Your task to perform on an android device: move an email to a new category in the gmail app Image 0: 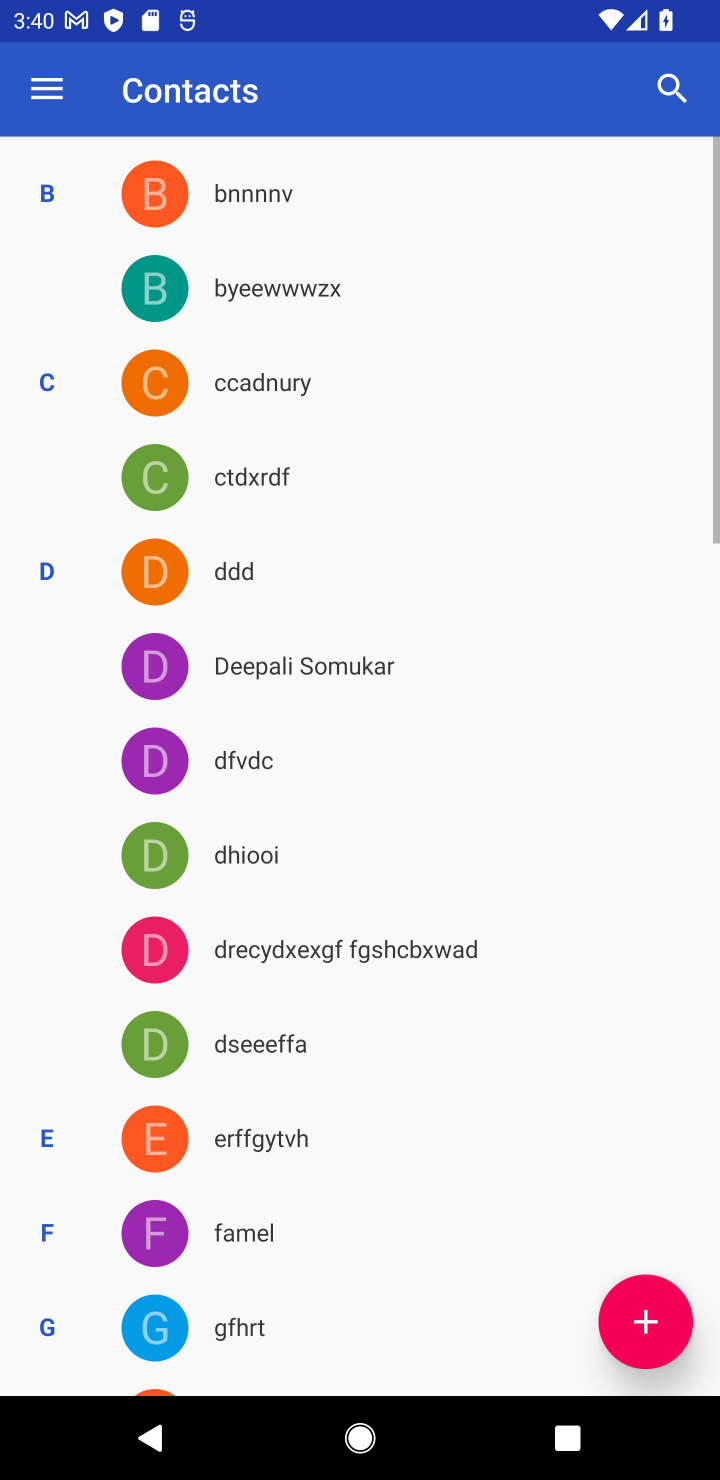
Step 0: press home button
Your task to perform on an android device: move an email to a new category in the gmail app Image 1: 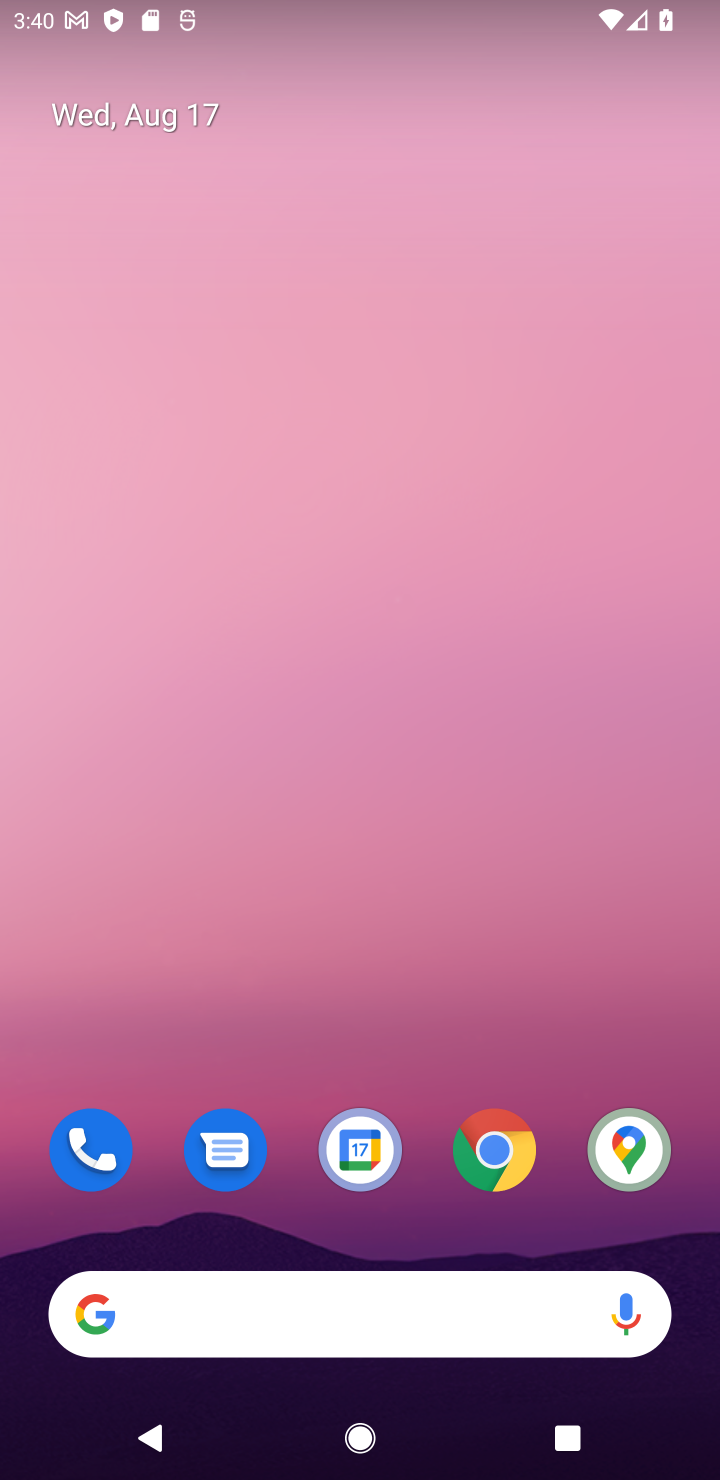
Step 1: drag from (635, 1227) to (322, 48)
Your task to perform on an android device: move an email to a new category in the gmail app Image 2: 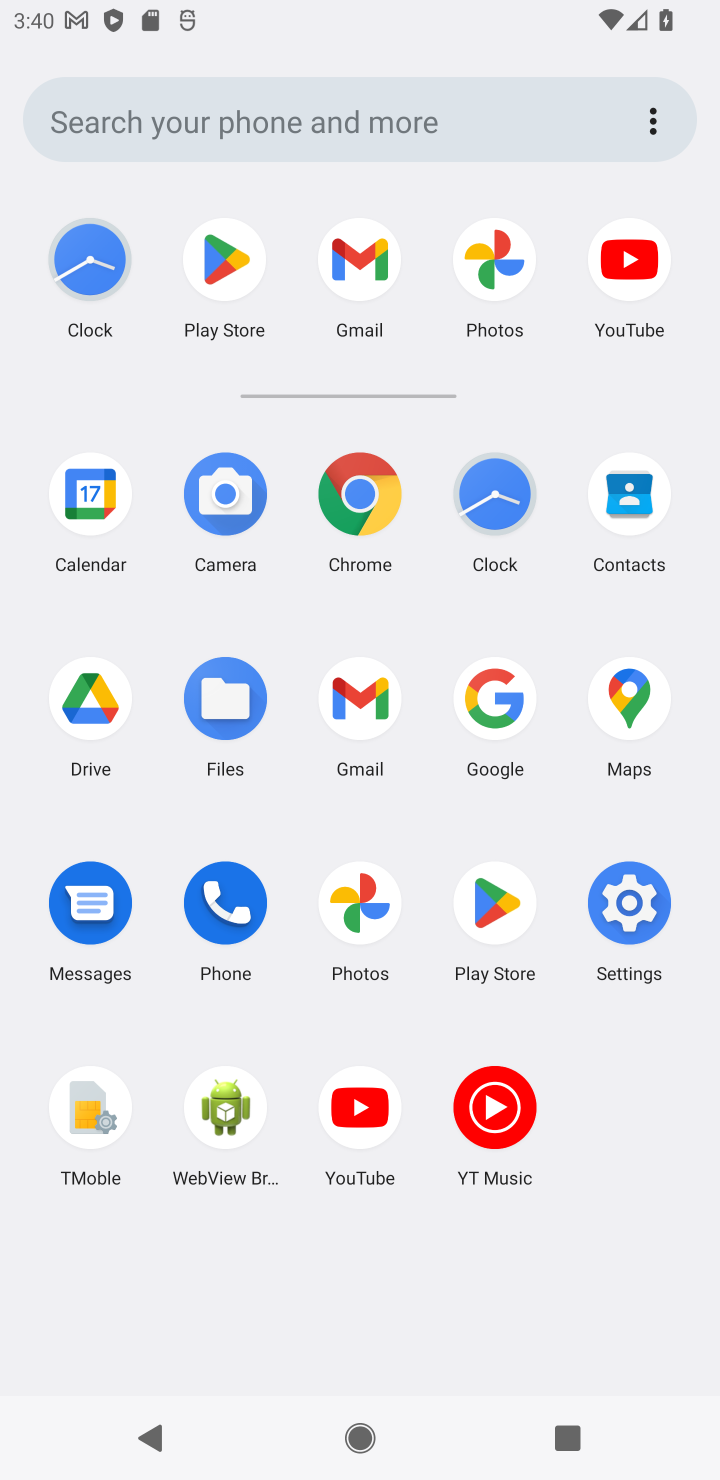
Step 2: click (372, 686)
Your task to perform on an android device: move an email to a new category in the gmail app Image 3: 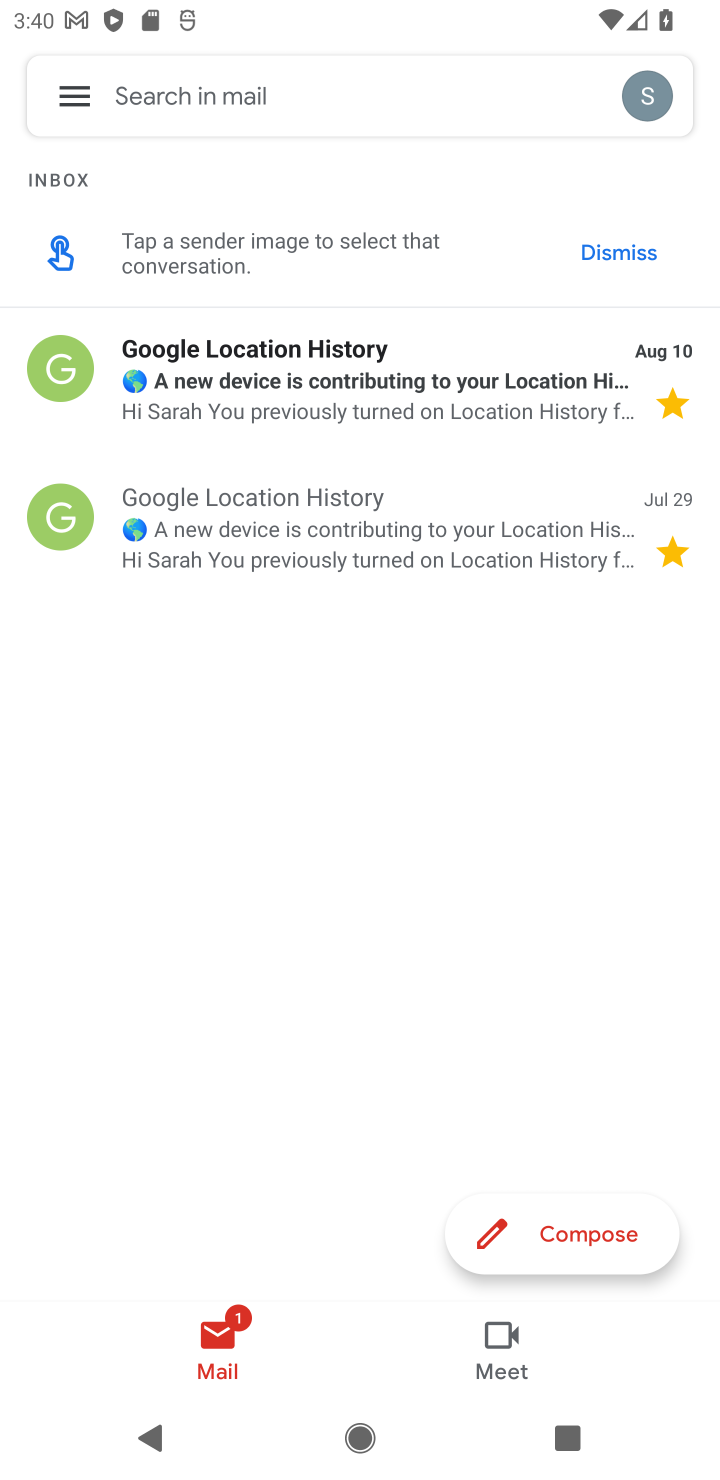
Step 3: task complete